Your task to perform on an android device: Open Google Maps and go to "Timeline" Image 0: 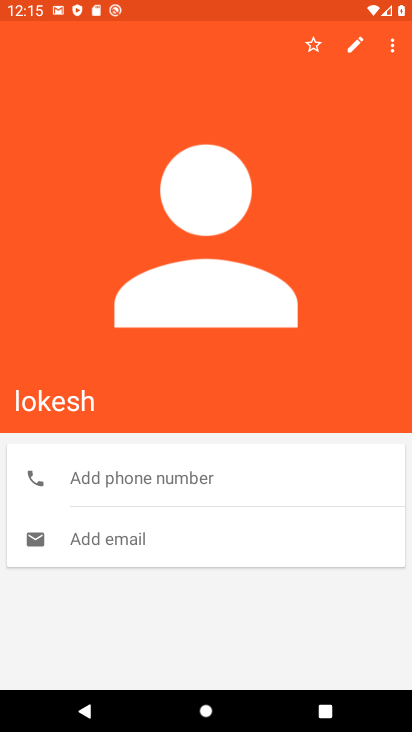
Step 0: press home button
Your task to perform on an android device: Open Google Maps and go to "Timeline" Image 1: 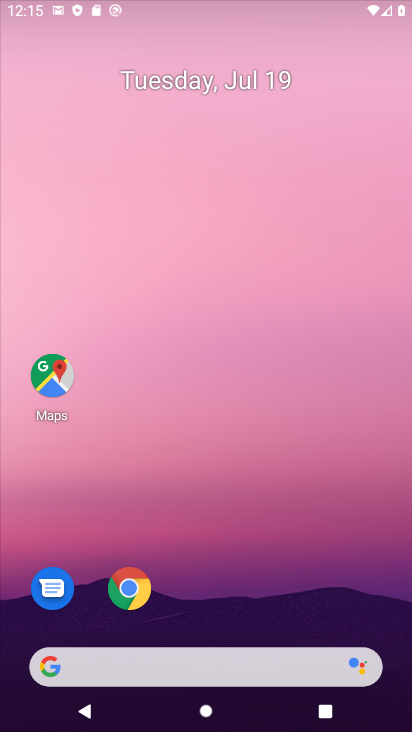
Step 1: drag from (394, 626) to (243, 55)
Your task to perform on an android device: Open Google Maps and go to "Timeline" Image 2: 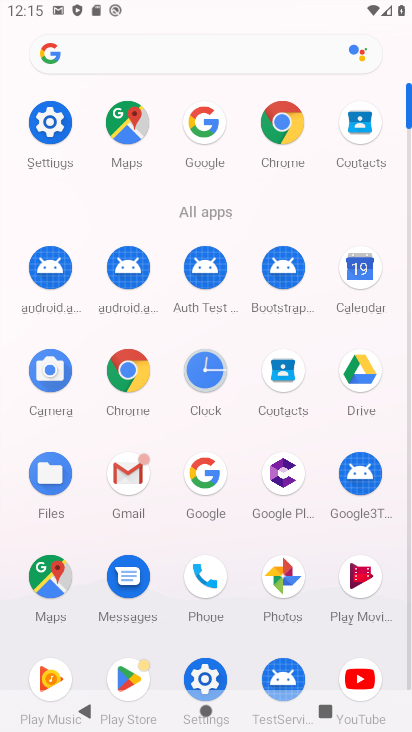
Step 2: drag from (319, 637) to (304, 243)
Your task to perform on an android device: Open Google Maps and go to "Timeline" Image 3: 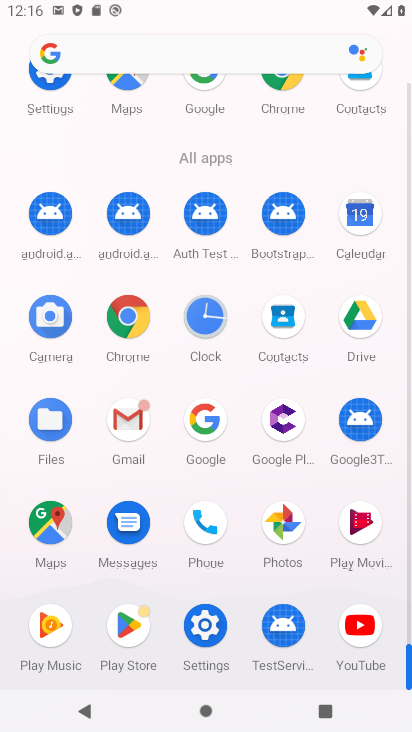
Step 3: click (61, 516)
Your task to perform on an android device: Open Google Maps and go to "Timeline" Image 4: 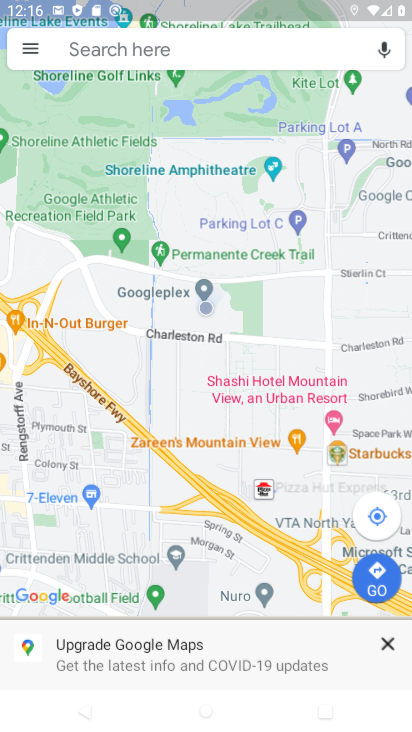
Step 4: click (28, 49)
Your task to perform on an android device: Open Google Maps and go to "Timeline" Image 5: 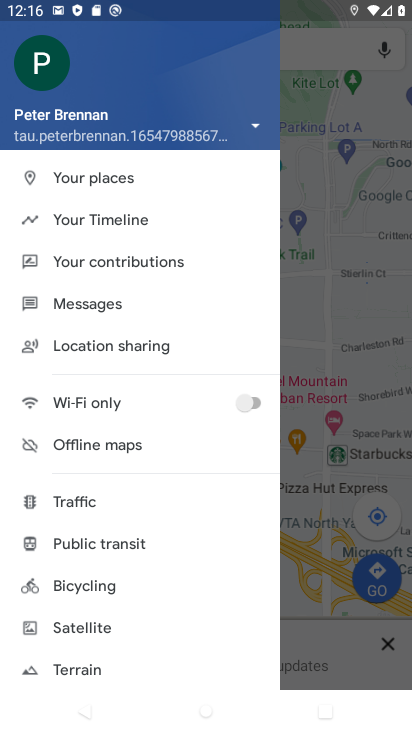
Step 5: click (95, 226)
Your task to perform on an android device: Open Google Maps and go to "Timeline" Image 6: 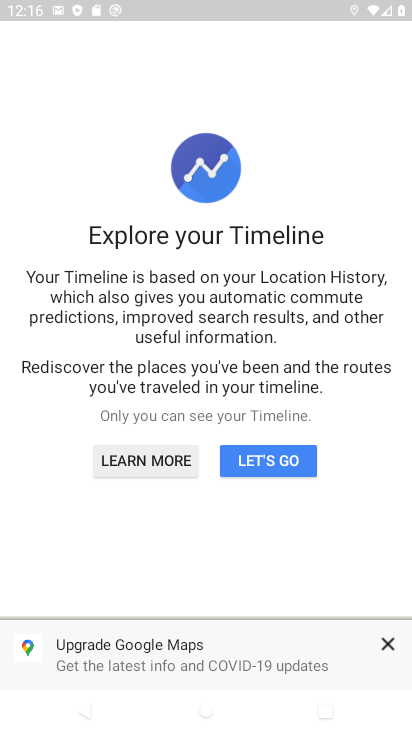
Step 6: task complete